Your task to perform on an android device: turn off priority inbox in the gmail app Image 0: 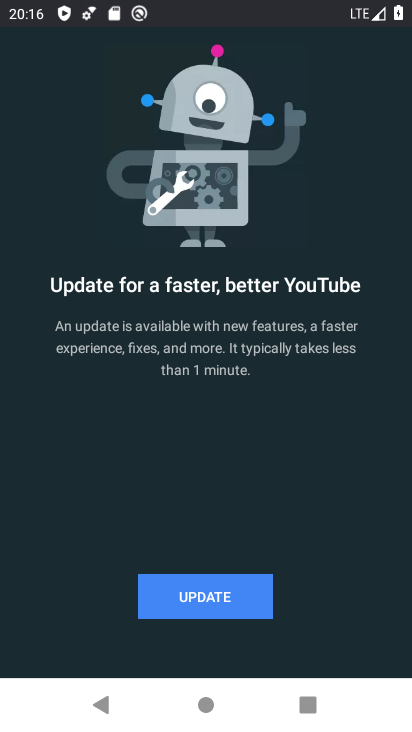
Step 0: press home button
Your task to perform on an android device: turn off priority inbox in the gmail app Image 1: 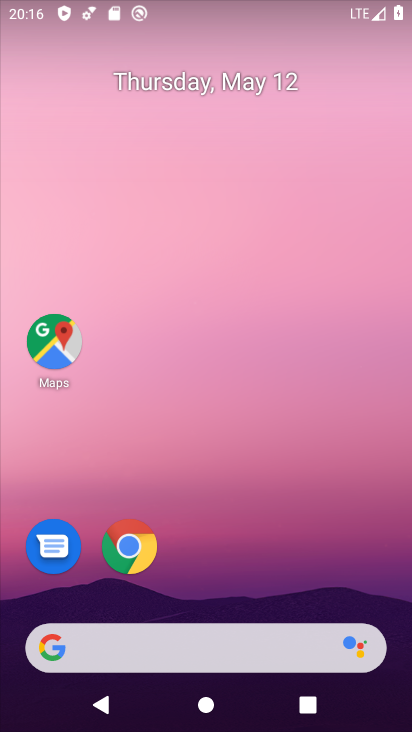
Step 1: drag from (191, 522) to (254, 10)
Your task to perform on an android device: turn off priority inbox in the gmail app Image 2: 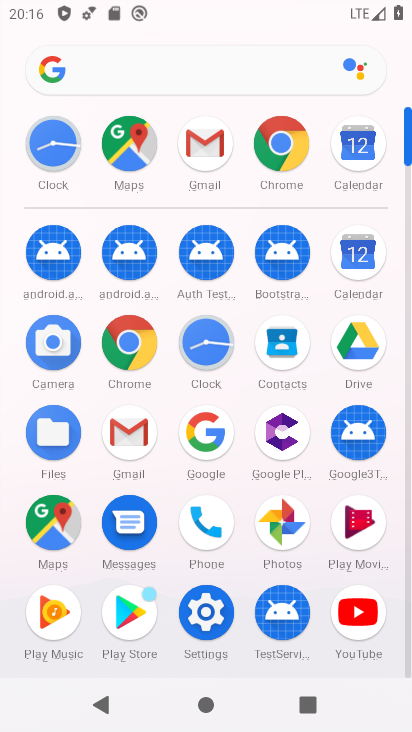
Step 2: click (190, 141)
Your task to perform on an android device: turn off priority inbox in the gmail app Image 3: 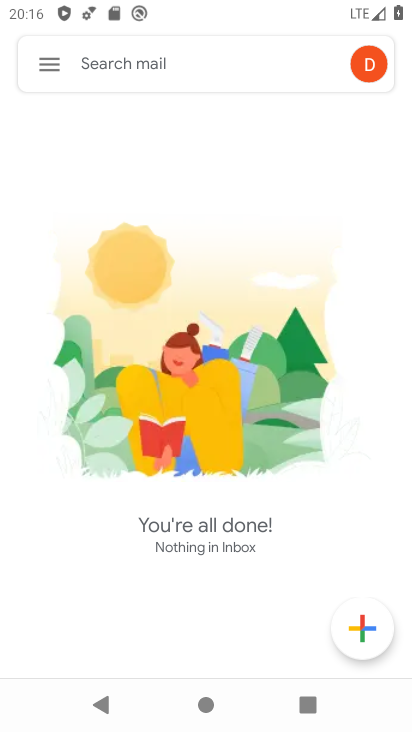
Step 3: click (42, 59)
Your task to perform on an android device: turn off priority inbox in the gmail app Image 4: 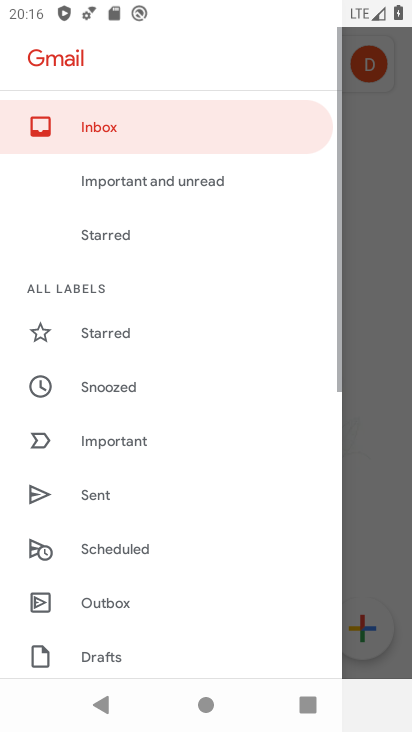
Step 4: drag from (195, 610) to (257, 74)
Your task to perform on an android device: turn off priority inbox in the gmail app Image 5: 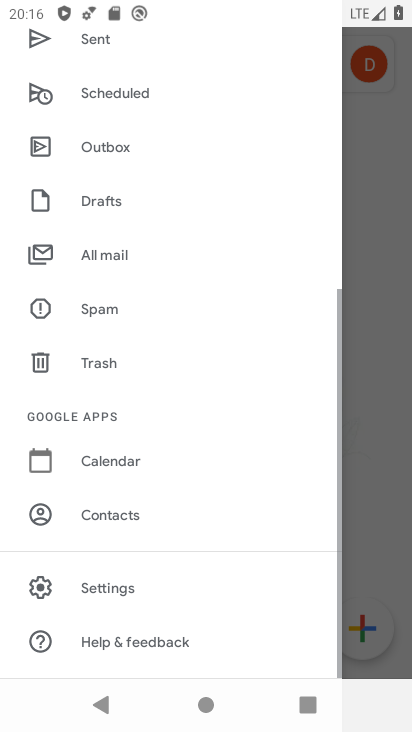
Step 5: click (105, 573)
Your task to perform on an android device: turn off priority inbox in the gmail app Image 6: 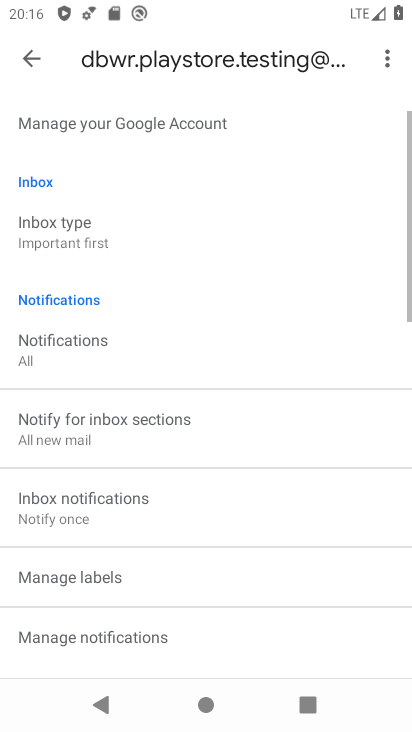
Step 6: click (90, 220)
Your task to perform on an android device: turn off priority inbox in the gmail app Image 7: 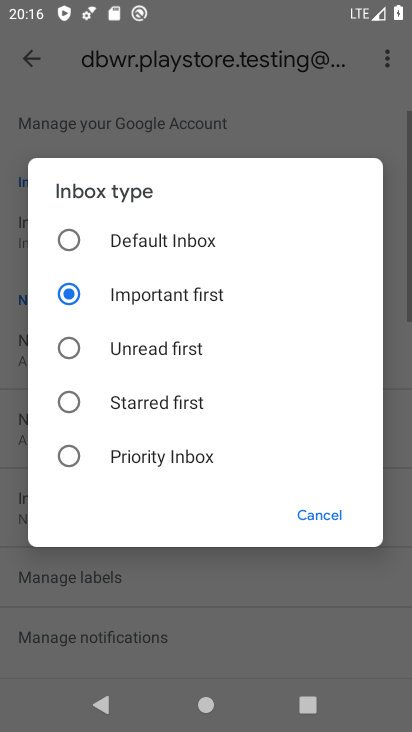
Step 7: click (65, 457)
Your task to perform on an android device: turn off priority inbox in the gmail app Image 8: 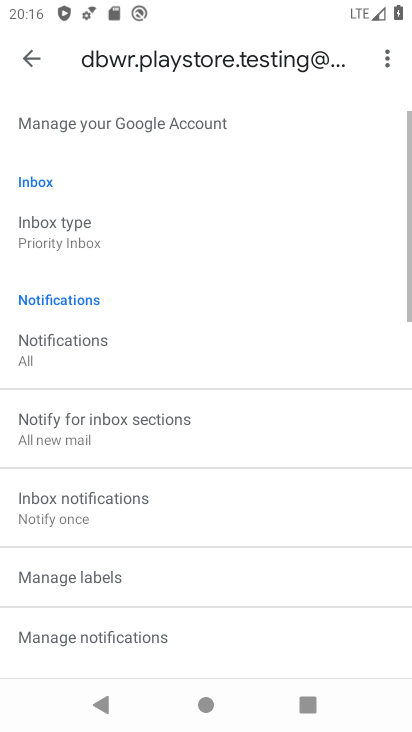
Step 8: click (62, 235)
Your task to perform on an android device: turn off priority inbox in the gmail app Image 9: 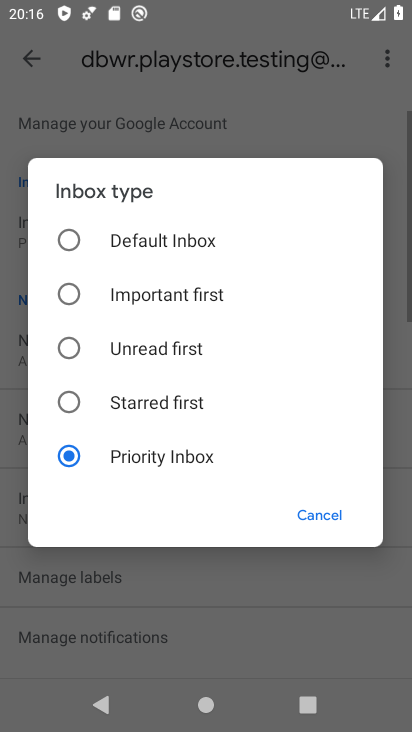
Step 9: click (62, 235)
Your task to perform on an android device: turn off priority inbox in the gmail app Image 10: 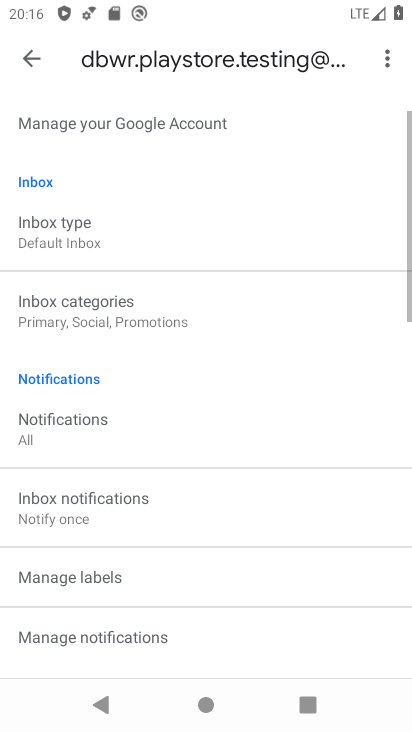
Step 10: task complete